Your task to perform on an android device: turn on the 12-hour format for clock Image 0: 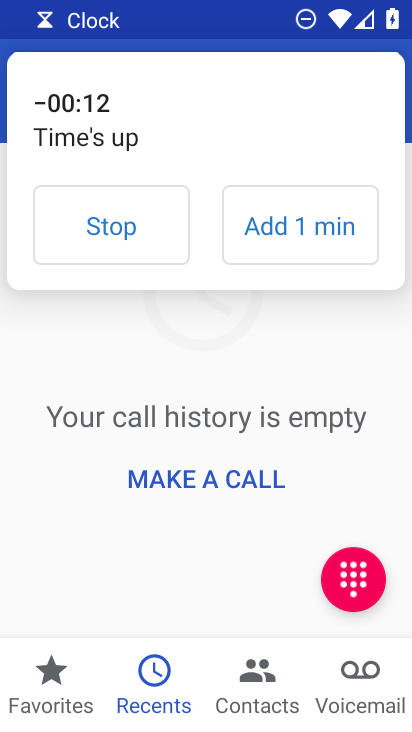
Step 0: press back button
Your task to perform on an android device: turn on the 12-hour format for clock Image 1: 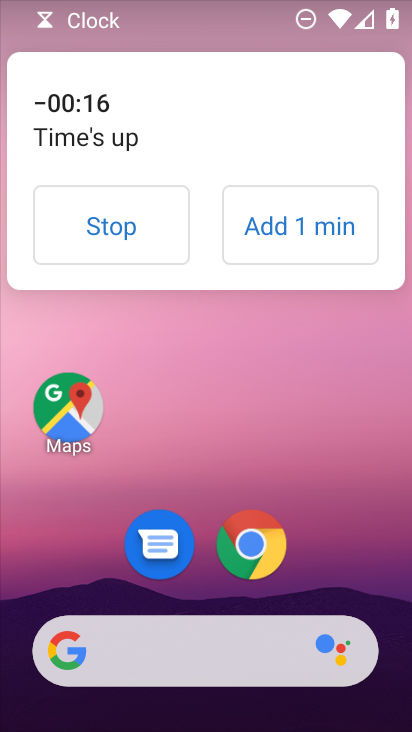
Step 1: drag from (353, 516) to (326, 107)
Your task to perform on an android device: turn on the 12-hour format for clock Image 2: 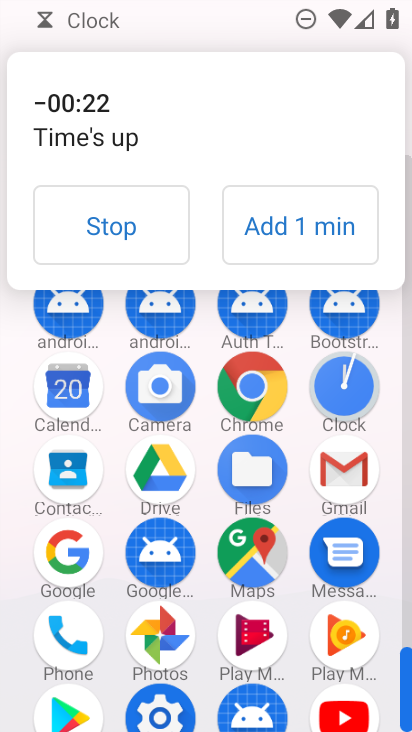
Step 2: click (357, 385)
Your task to perform on an android device: turn on the 12-hour format for clock Image 3: 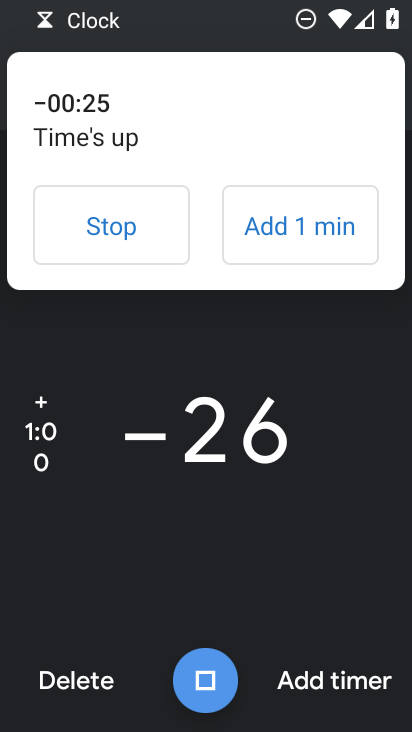
Step 3: click (115, 228)
Your task to perform on an android device: turn on the 12-hour format for clock Image 4: 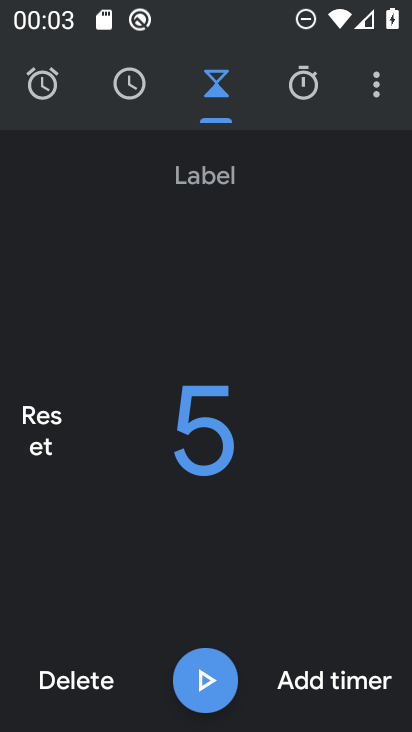
Step 4: click (375, 86)
Your task to perform on an android device: turn on the 12-hour format for clock Image 5: 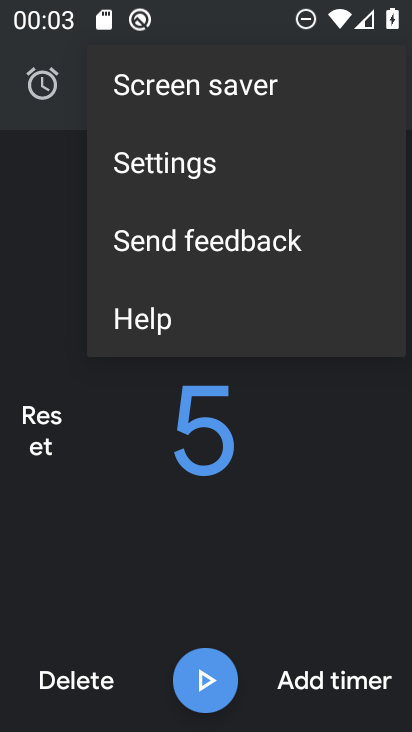
Step 5: click (206, 185)
Your task to perform on an android device: turn on the 12-hour format for clock Image 6: 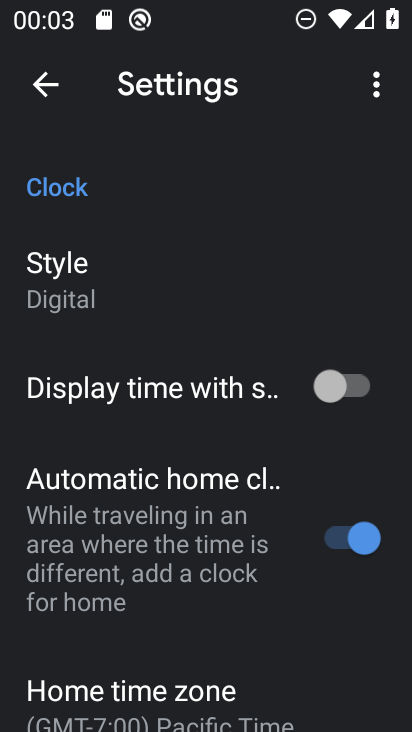
Step 6: drag from (271, 585) to (259, 310)
Your task to perform on an android device: turn on the 12-hour format for clock Image 7: 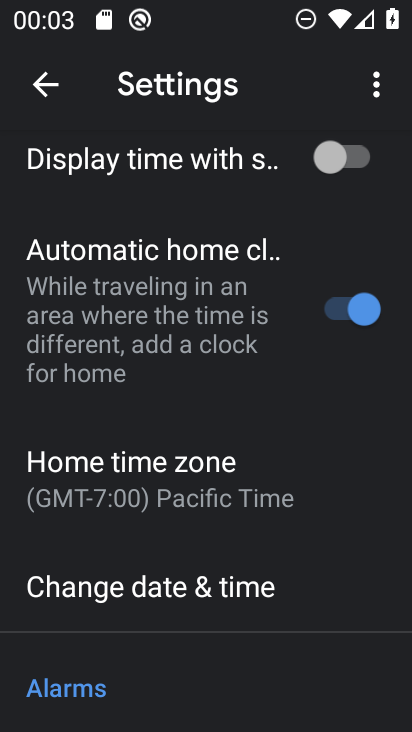
Step 7: drag from (341, 548) to (310, 274)
Your task to perform on an android device: turn on the 12-hour format for clock Image 8: 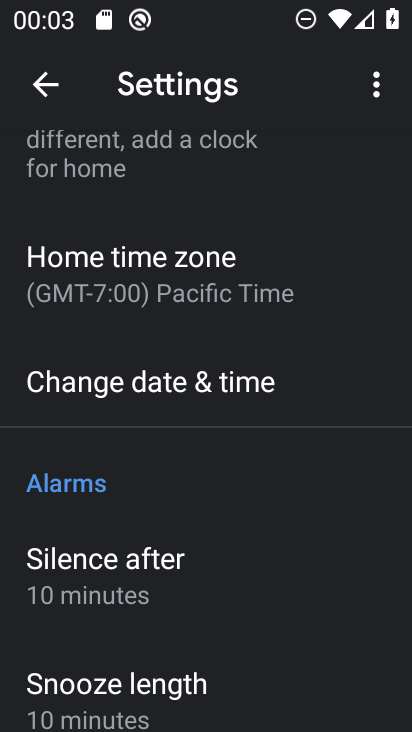
Step 8: drag from (348, 579) to (308, 326)
Your task to perform on an android device: turn on the 12-hour format for clock Image 9: 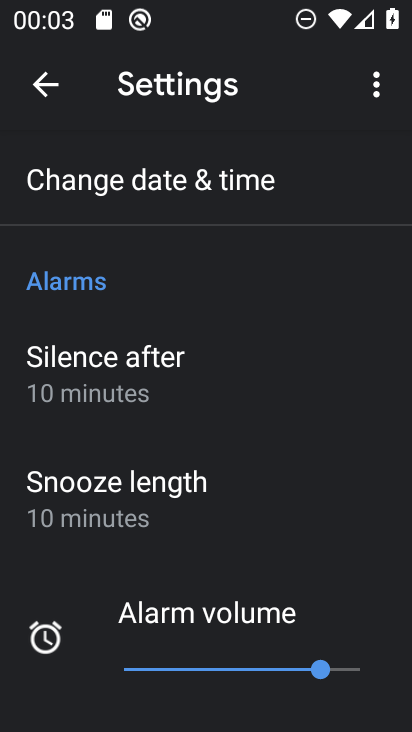
Step 9: drag from (367, 520) to (289, 284)
Your task to perform on an android device: turn on the 12-hour format for clock Image 10: 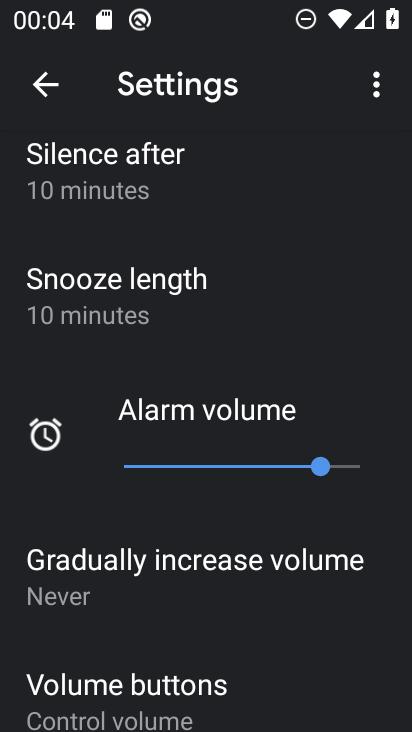
Step 10: drag from (335, 623) to (359, 280)
Your task to perform on an android device: turn on the 12-hour format for clock Image 11: 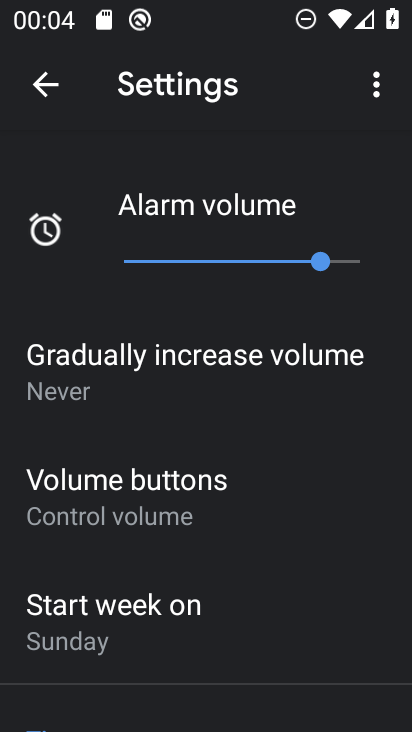
Step 11: drag from (324, 544) to (341, 300)
Your task to perform on an android device: turn on the 12-hour format for clock Image 12: 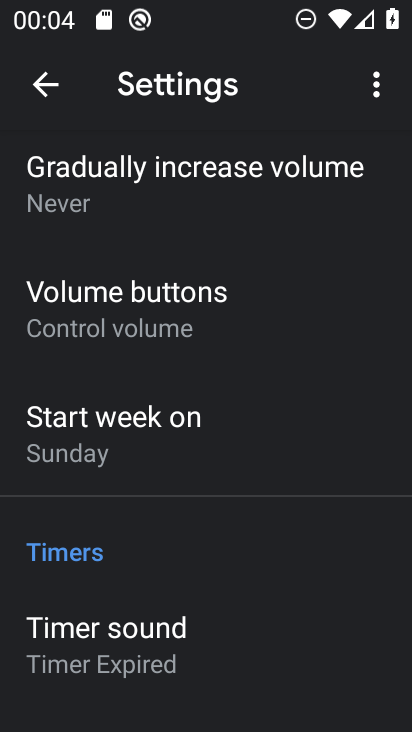
Step 12: drag from (315, 577) to (336, 358)
Your task to perform on an android device: turn on the 12-hour format for clock Image 13: 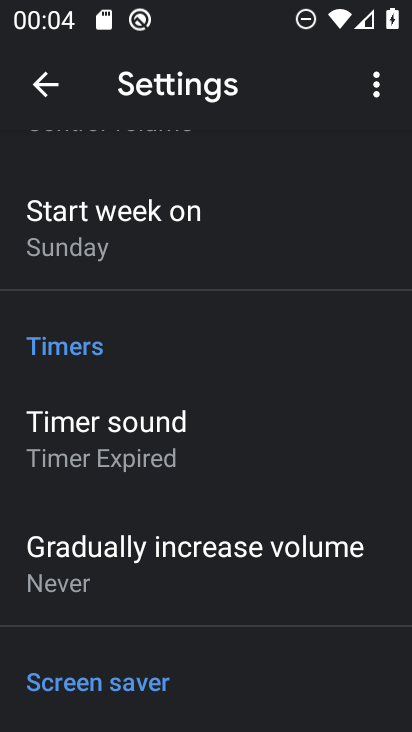
Step 13: drag from (316, 248) to (346, 508)
Your task to perform on an android device: turn on the 12-hour format for clock Image 14: 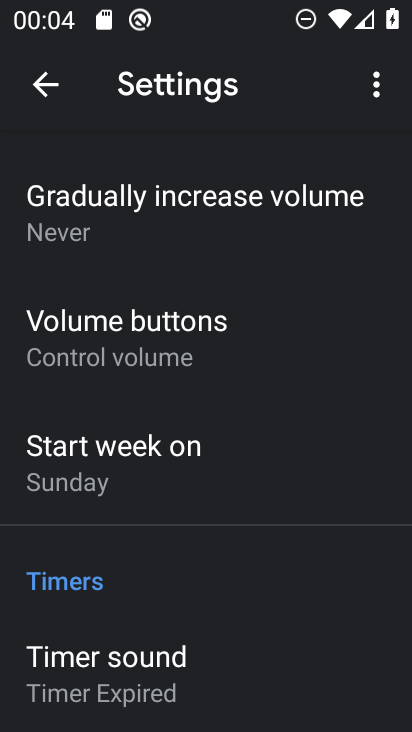
Step 14: drag from (339, 307) to (363, 560)
Your task to perform on an android device: turn on the 12-hour format for clock Image 15: 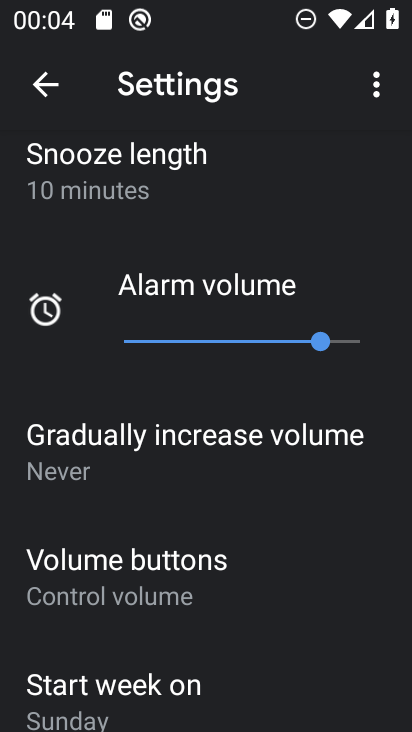
Step 15: drag from (378, 314) to (367, 522)
Your task to perform on an android device: turn on the 12-hour format for clock Image 16: 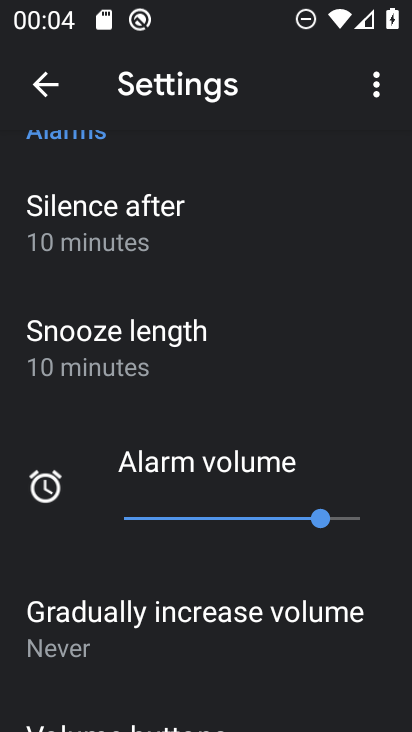
Step 16: drag from (364, 272) to (345, 524)
Your task to perform on an android device: turn on the 12-hour format for clock Image 17: 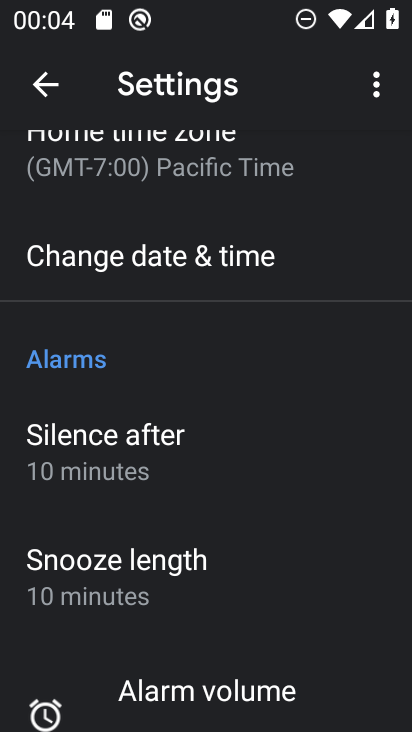
Step 17: drag from (334, 252) to (377, 475)
Your task to perform on an android device: turn on the 12-hour format for clock Image 18: 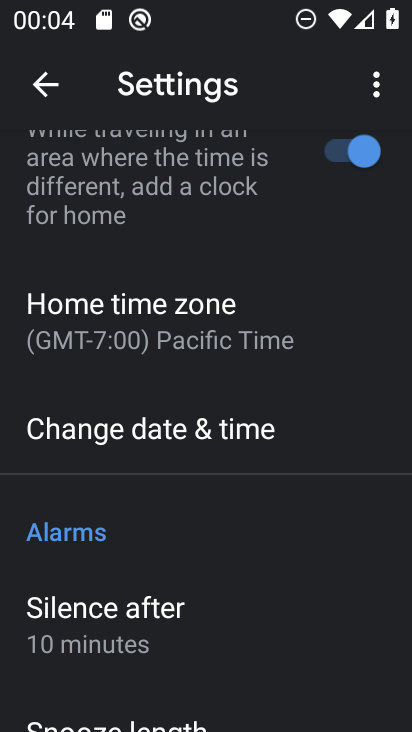
Step 18: click (246, 443)
Your task to perform on an android device: turn on the 12-hour format for clock Image 19: 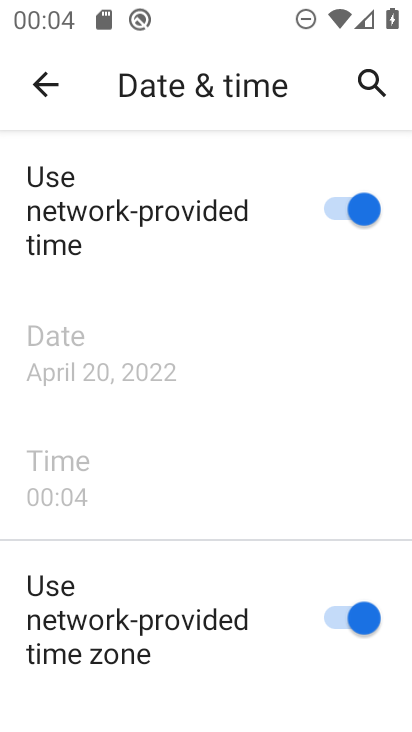
Step 19: drag from (229, 552) to (243, 330)
Your task to perform on an android device: turn on the 12-hour format for clock Image 20: 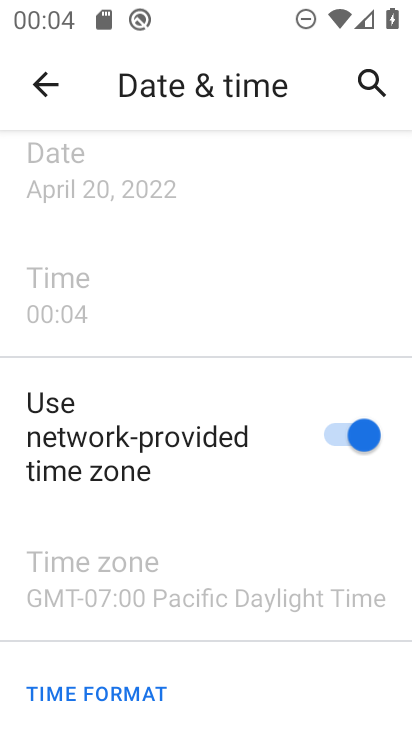
Step 20: drag from (244, 575) to (270, 325)
Your task to perform on an android device: turn on the 12-hour format for clock Image 21: 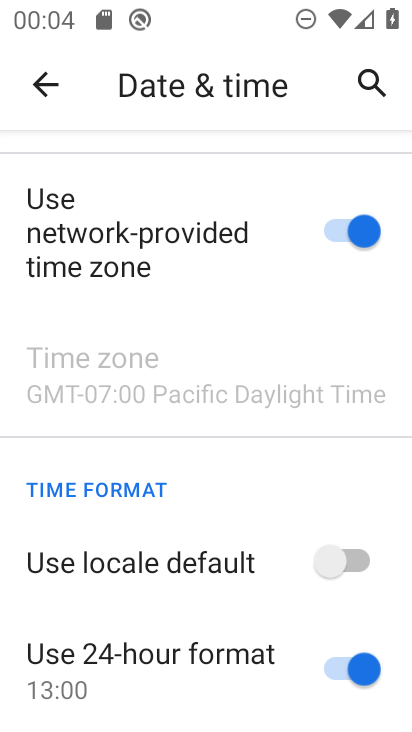
Step 21: click (350, 659)
Your task to perform on an android device: turn on the 12-hour format for clock Image 22: 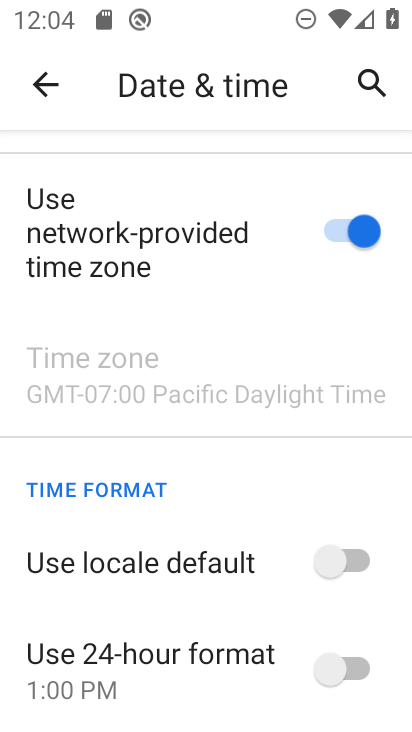
Step 22: task complete